Your task to perform on an android device: turn off location history Image 0: 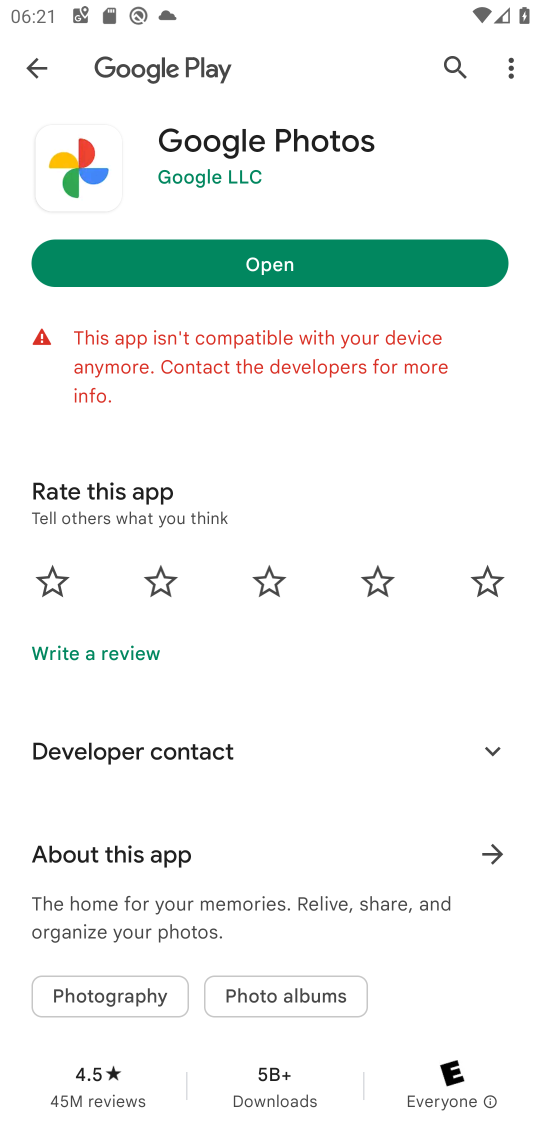
Step 0: press home button
Your task to perform on an android device: turn off location history Image 1: 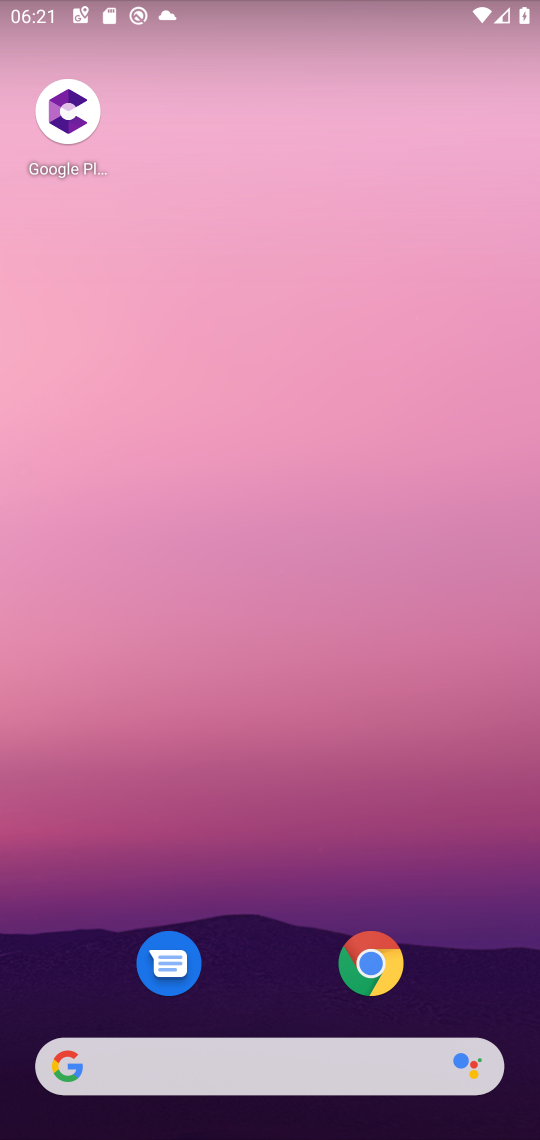
Step 1: drag from (274, 897) to (183, 116)
Your task to perform on an android device: turn off location history Image 2: 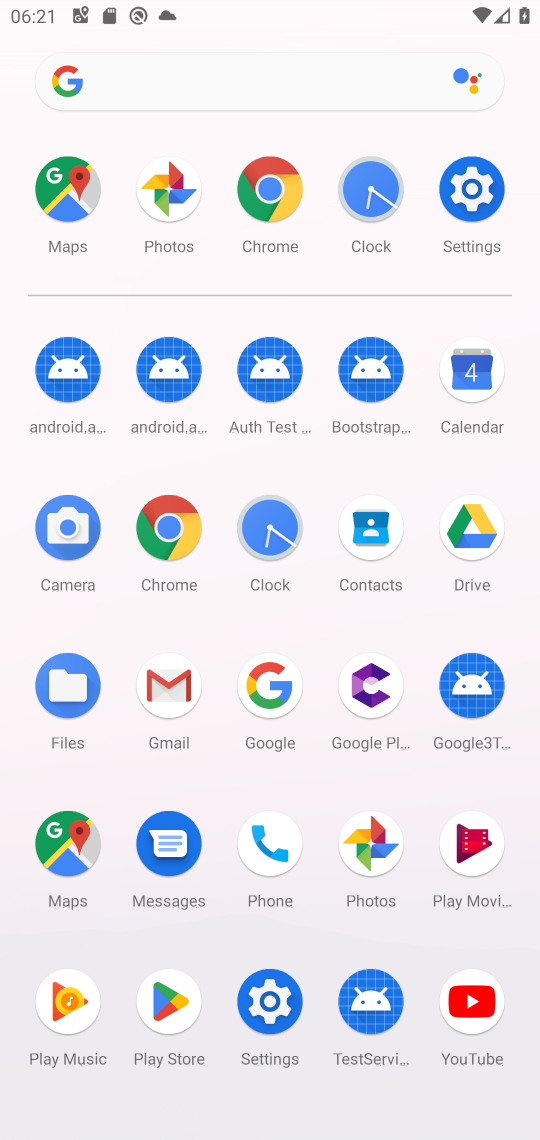
Step 2: click (470, 186)
Your task to perform on an android device: turn off location history Image 3: 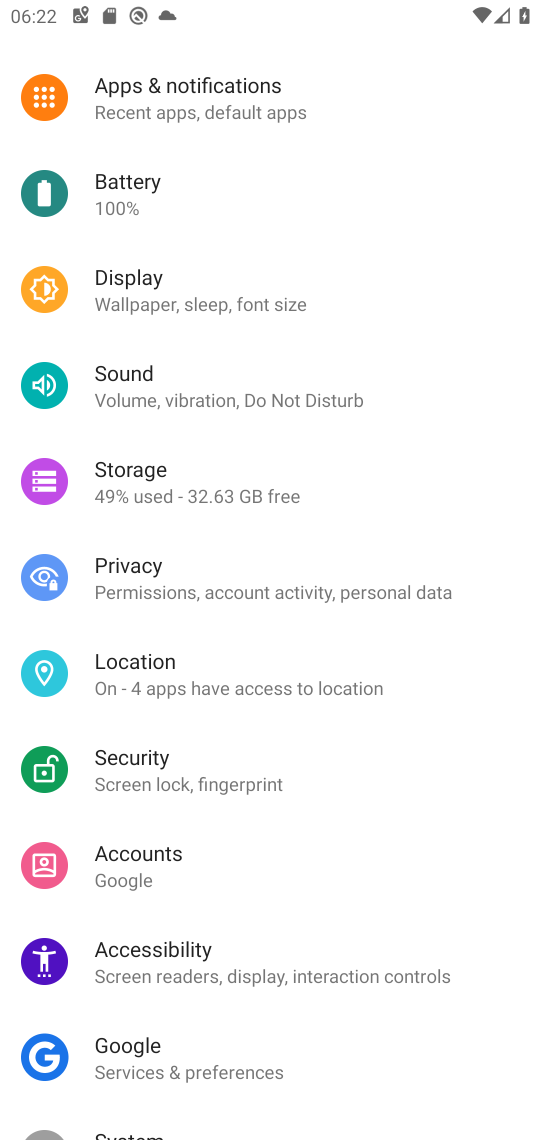
Step 3: click (153, 658)
Your task to perform on an android device: turn off location history Image 4: 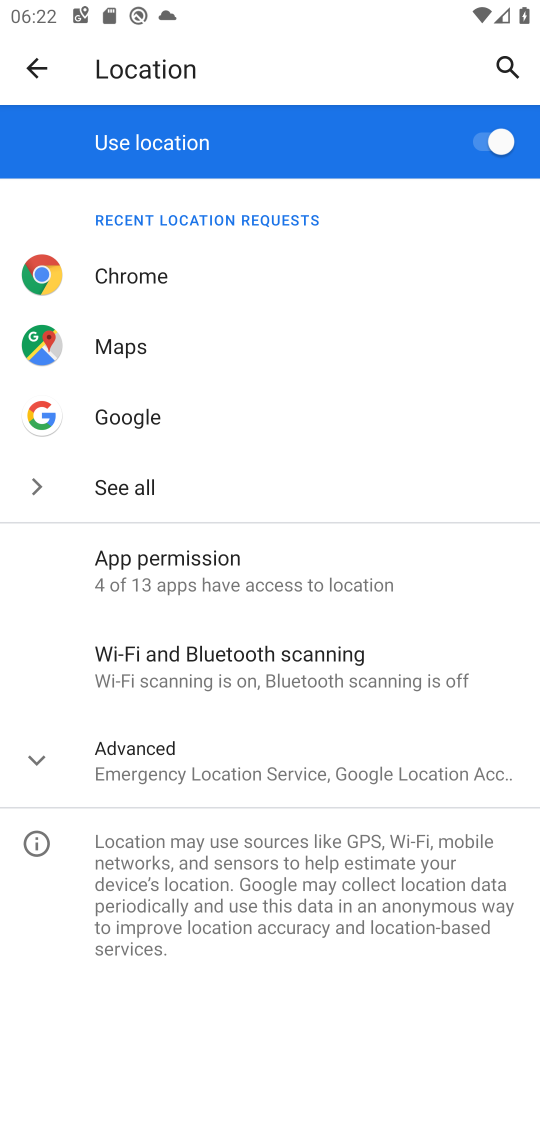
Step 4: click (52, 753)
Your task to perform on an android device: turn off location history Image 5: 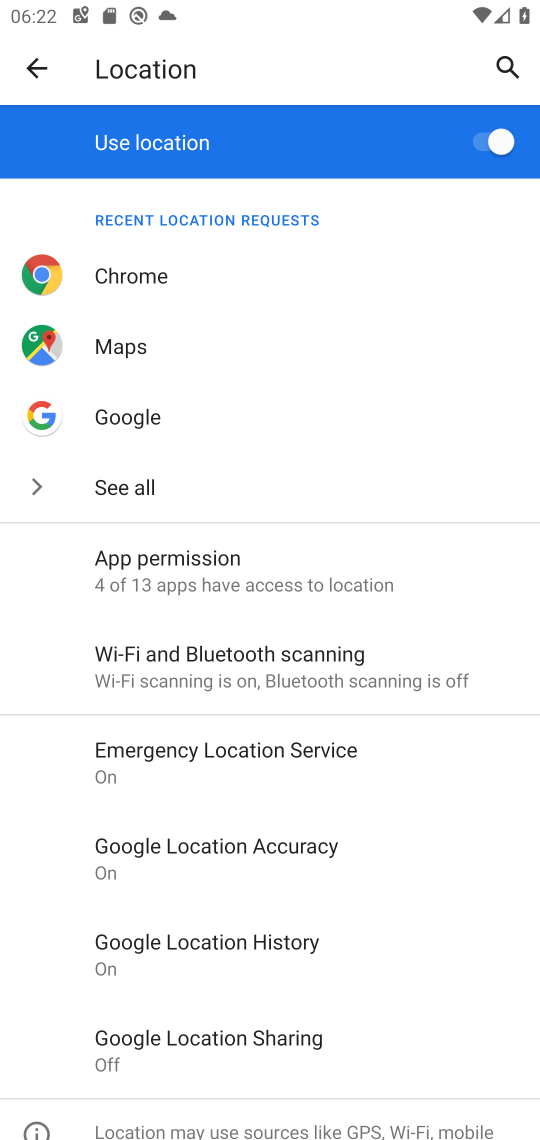
Step 5: click (272, 944)
Your task to perform on an android device: turn off location history Image 6: 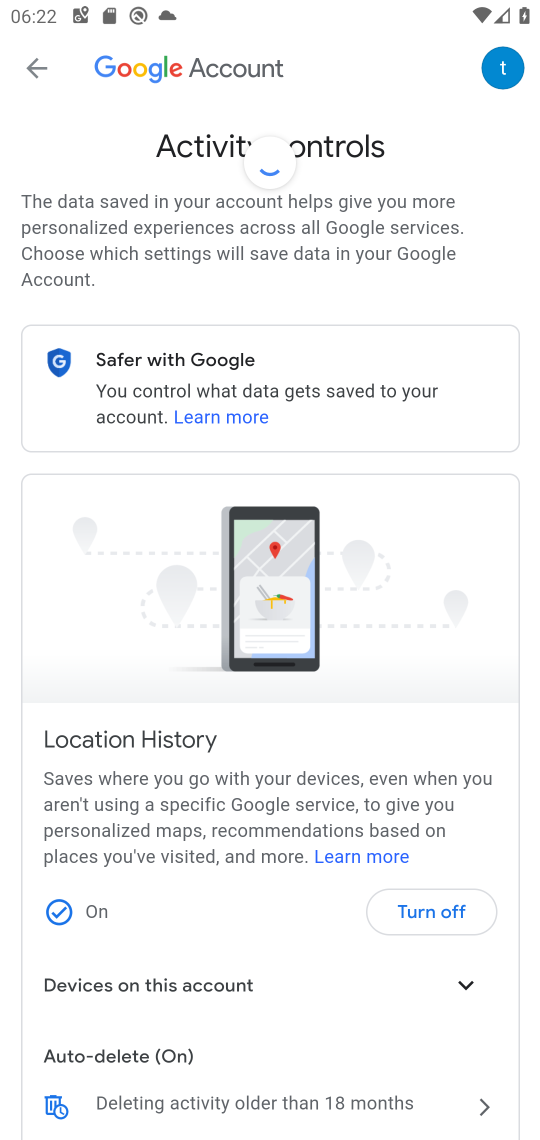
Step 6: click (426, 920)
Your task to perform on an android device: turn off location history Image 7: 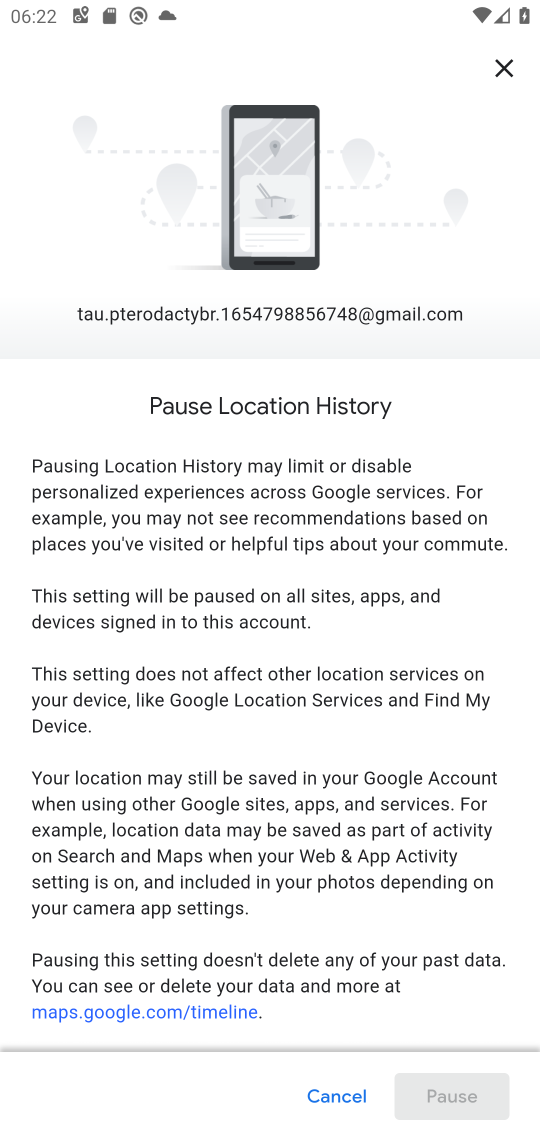
Step 7: drag from (379, 961) to (325, 342)
Your task to perform on an android device: turn off location history Image 8: 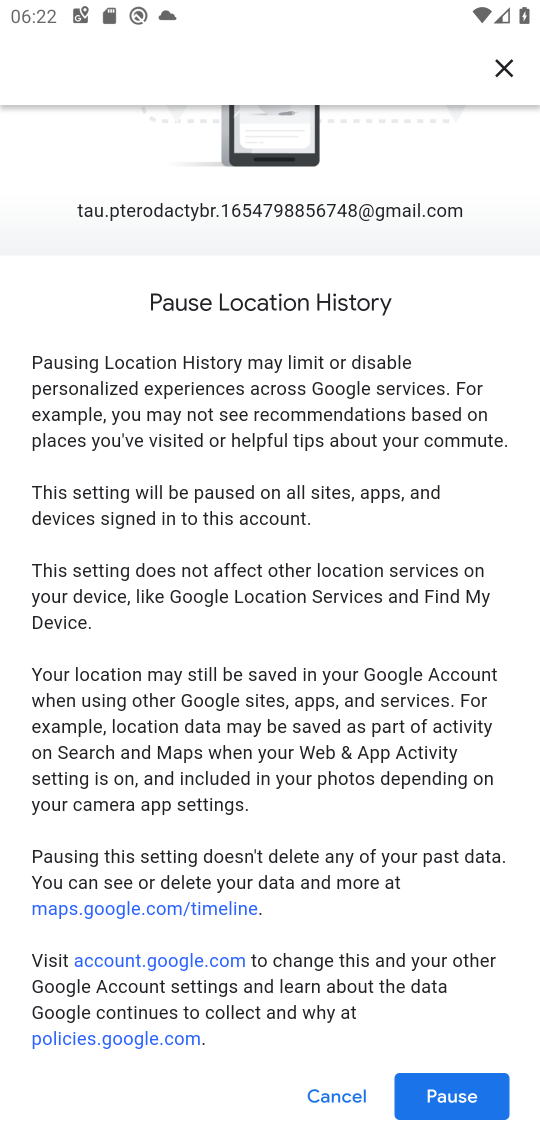
Step 8: click (435, 1093)
Your task to perform on an android device: turn off location history Image 9: 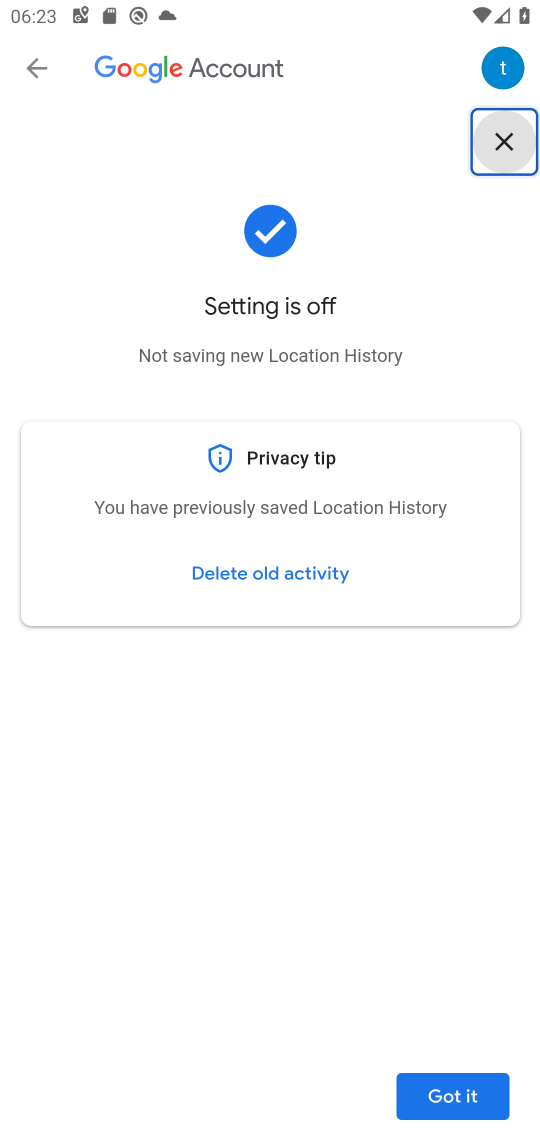
Step 9: click (479, 1099)
Your task to perform on an android device: turn off location history Image 10: 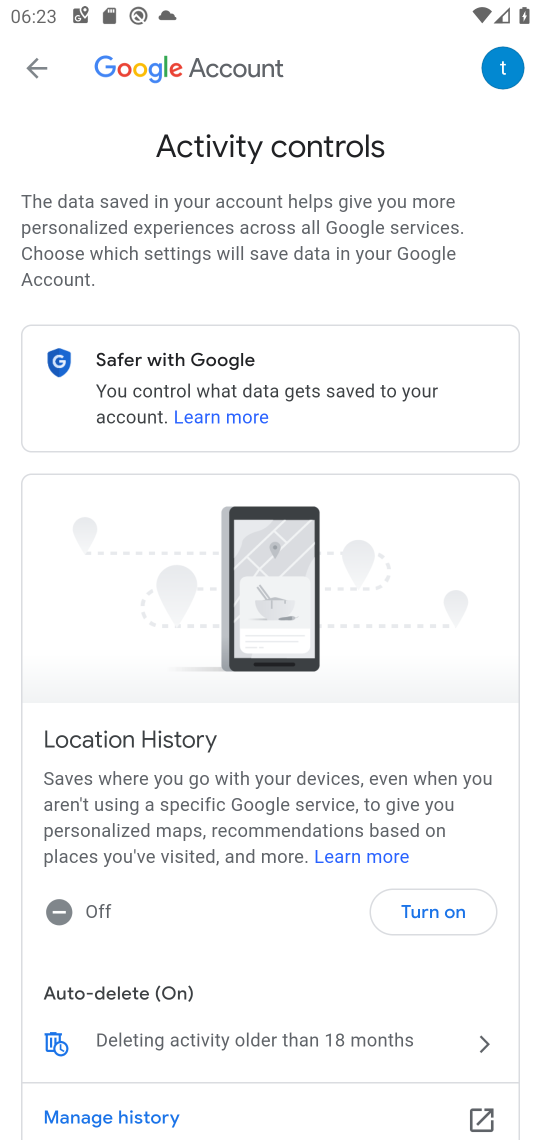
Step 10: task complete